Your task to perform on an android device: turn off location history Image 0: 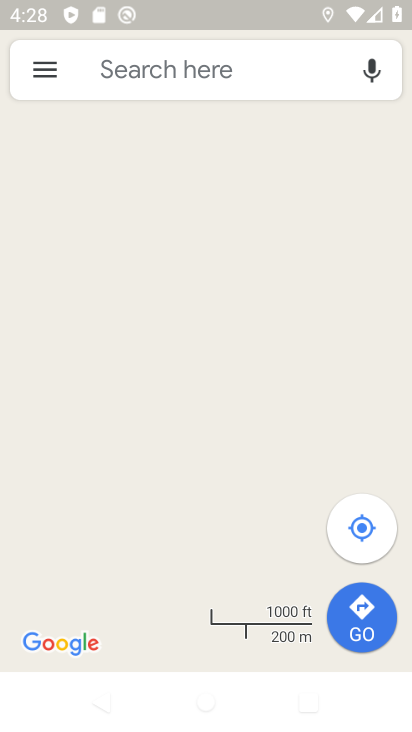
Step 0: press back button
Your task to perform on an android device: turn off location history Image 1: 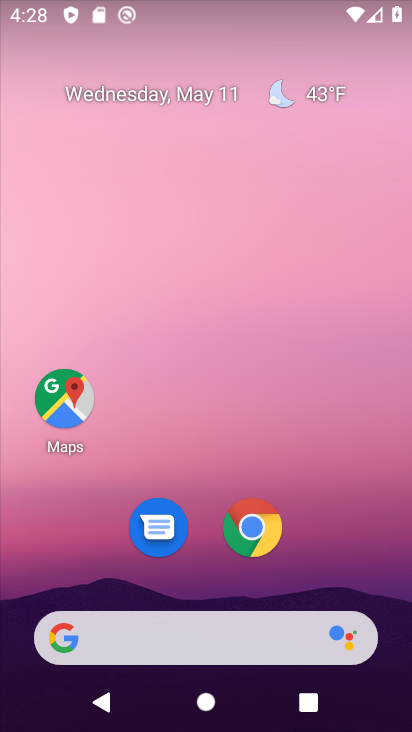
Step 1: drag from (152, 621) to (228, 116)
Your task to perform on an android device: turn off location history Image 2: 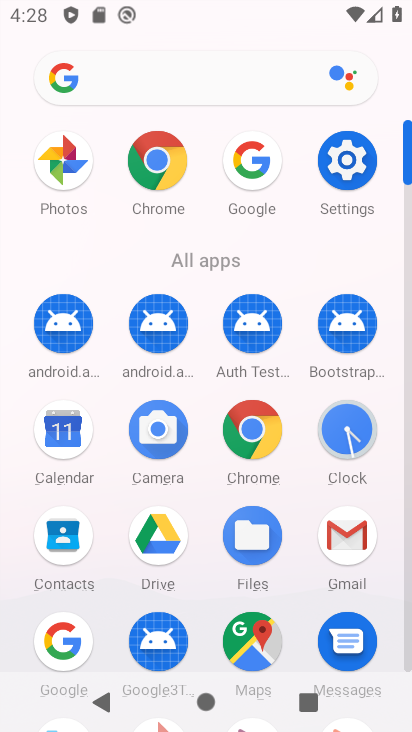
Step 2: drag from (172, 657) to (225, 406)
Your task to perform on an android device: turn off location history Image 3: 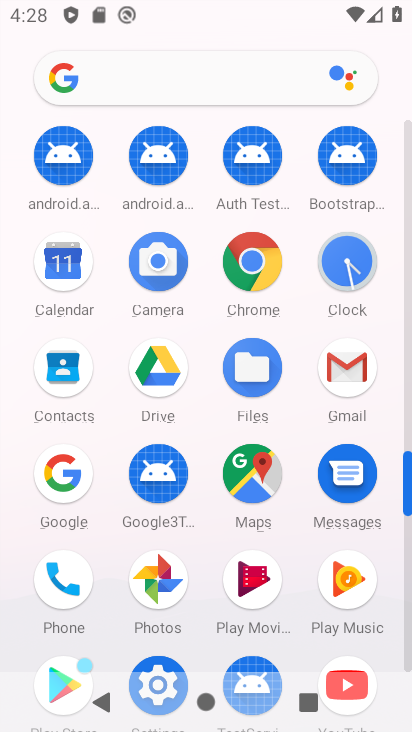
Step 3: click (167, 674)
Your task to perform on an android device: turn off location history Image 4: 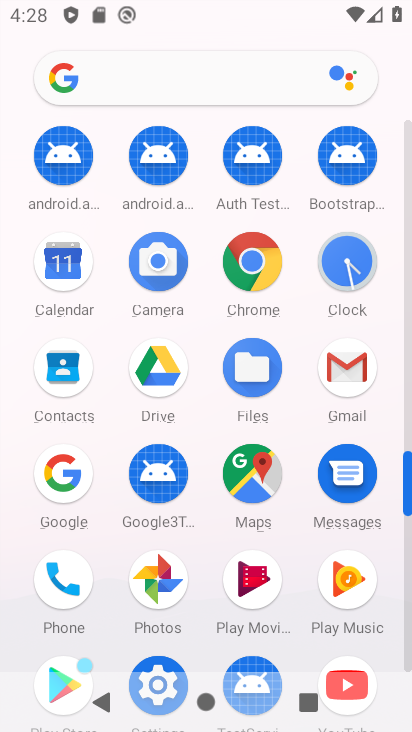
Step 4: drag from (160, 625) to (195, 449)
Your task to perform on an android device: turn off location history Image 5: 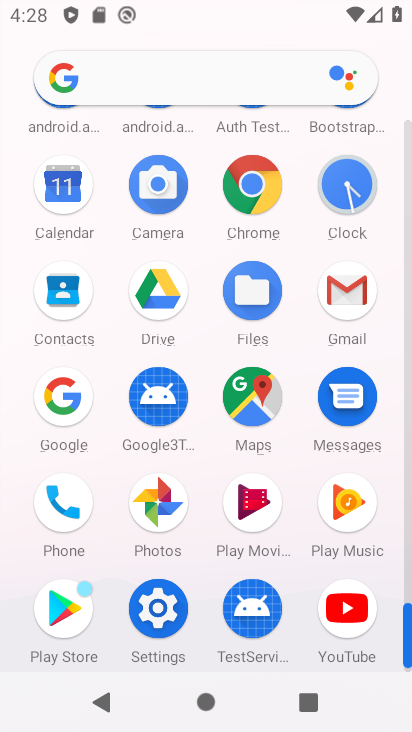
Step 5: click (152, 604)
Your task to perform on an android device: turn off location history Image 6: 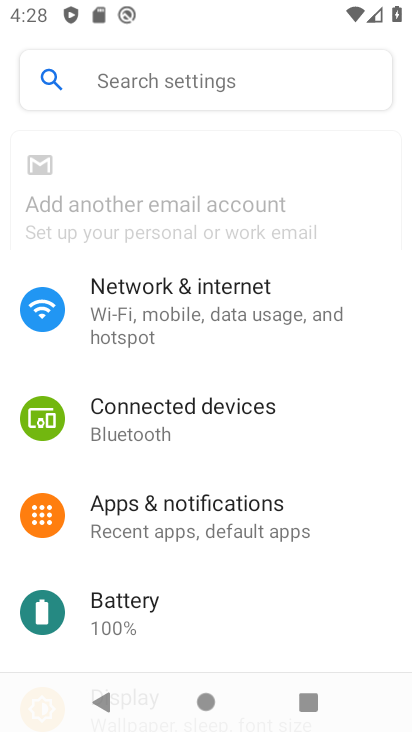
Step 6: drag from (155, 649) to (290, 283)
Your task to perform on an android device: turn off location history Image 7: 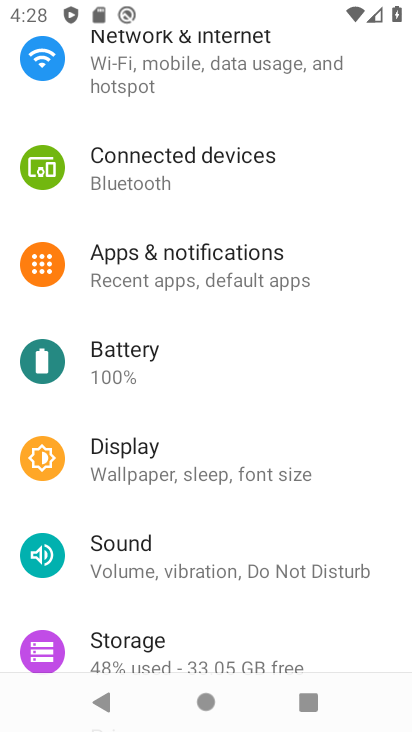
Step 7: drag from (185, 626) to (299, 241)
Your task to perform on an android device: turn off location history Image 8: 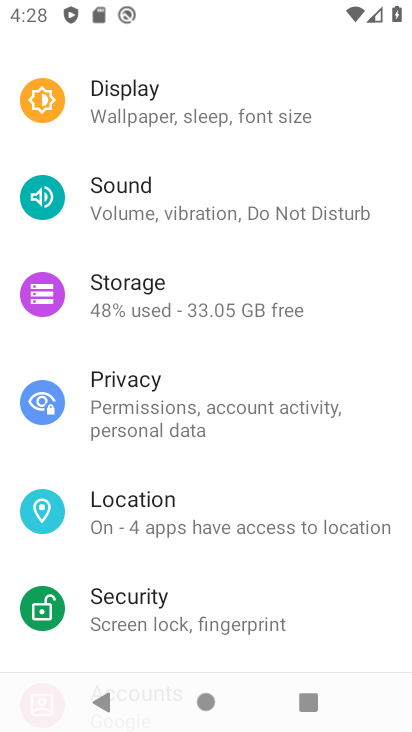
Step 8: click (200, 521)
Your task to perform on an android device: turn off location history Image 9: 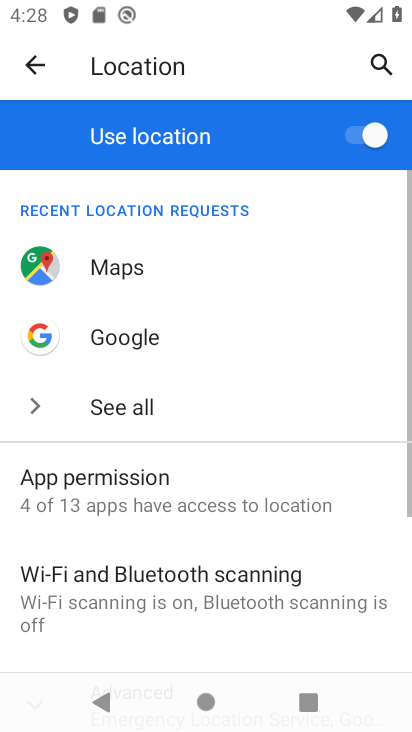
Step 9: drag from (143, 620) to (233, 300)
Your task to perform on an android device: turn off location history Image 10: 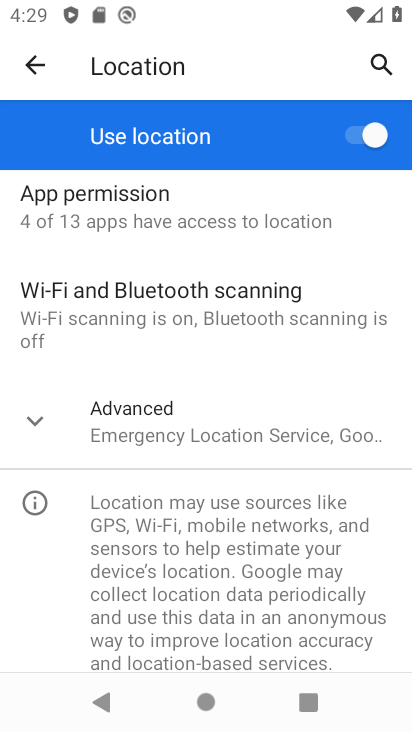
Step 10: click (198, 439)
Your task to perform on an android device: turn off location history Image 11: 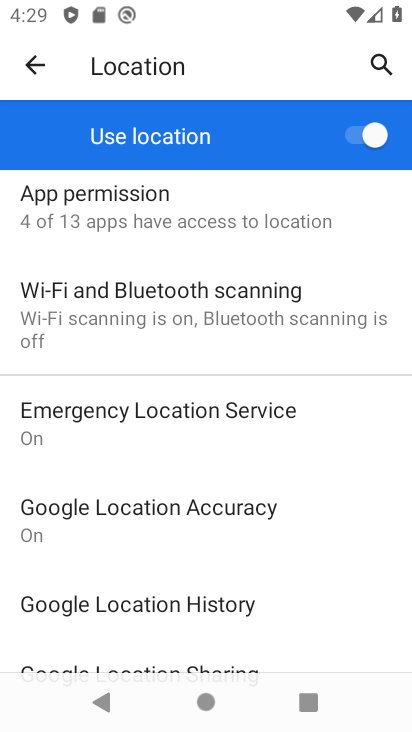
Step 11: drag from (176, 628) to (252, 398)
Your task to perform on an android device: turn off location history Image 12: 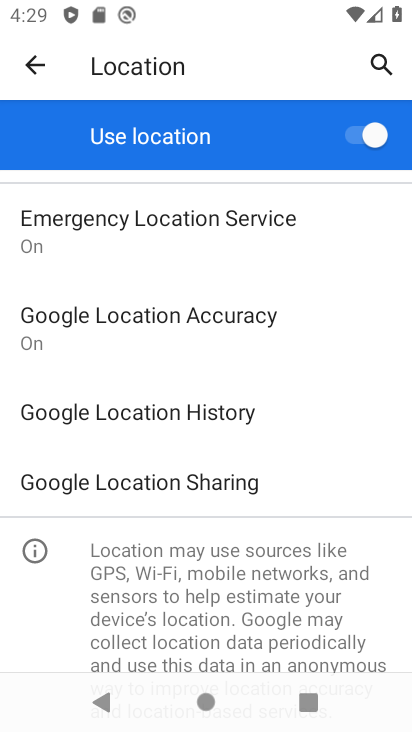
Step 12: click (214, 420)
Your task to perform on an android device: turn off location history Image 13: 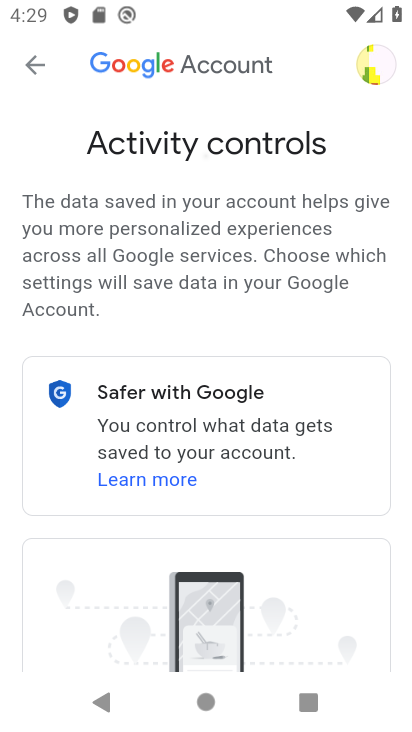
Step 13: task complete